Your task to perform on an android device: turn on sleep mode Image 0: 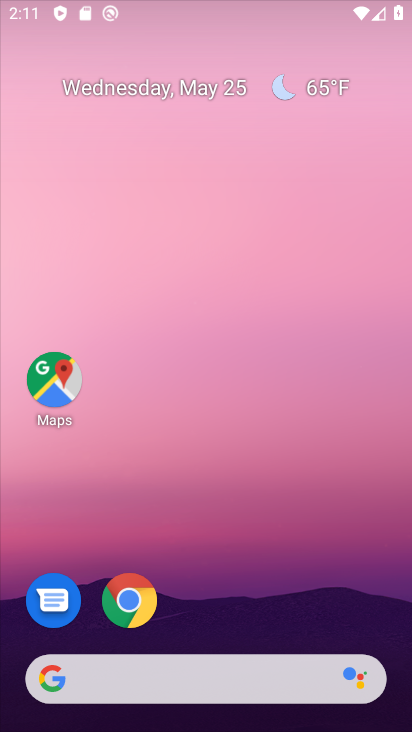
Step 0: drag from (298, 553) to (261, 149)
Your task to perform on an android device: turn on sleep mode Image 1: 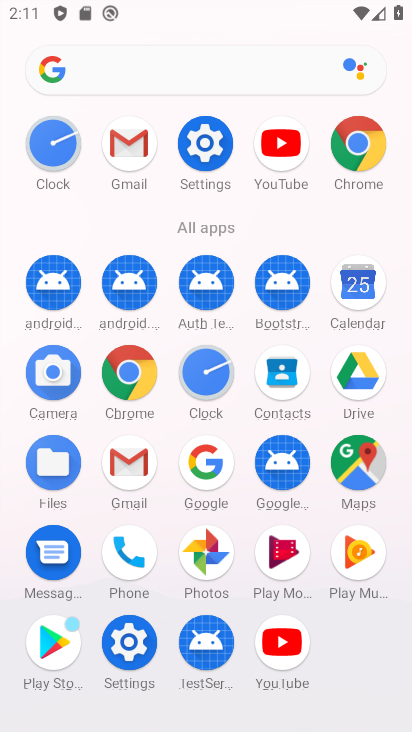
Step 1: click (194, 154)
Your task to perform on an android device: turn on sleep mode Image 2: 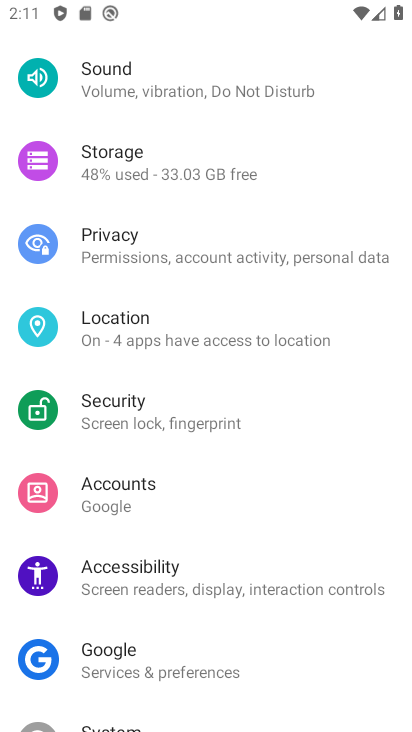
Step 2: drag from (195, 176) to (215, 522)
Your task to perform on an android device: turn on sleep mode Image 3: 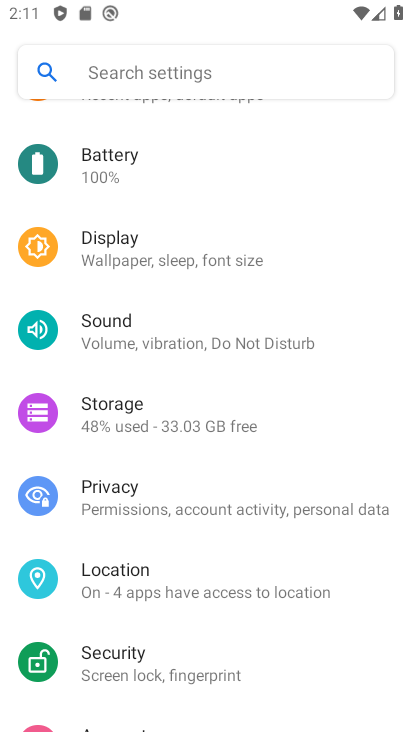
Step 3: drag from (221, 216) to (176, 551)
Your task to perform on an android device: turn on sleep mode Image 4: 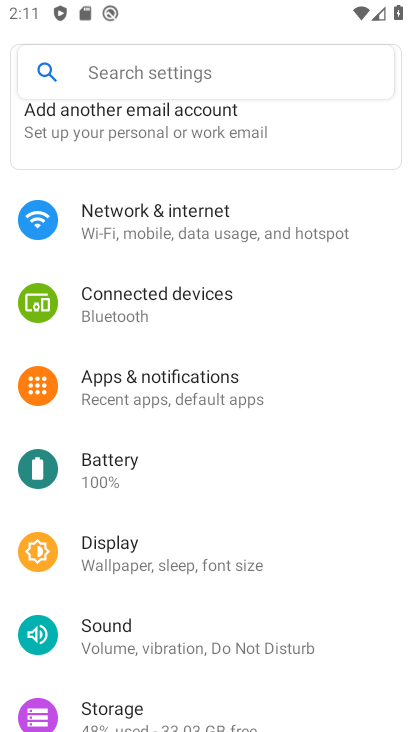
Step 4: click (148, 550)
Your task to perform on an android device: turn on sleep mode Image 5: 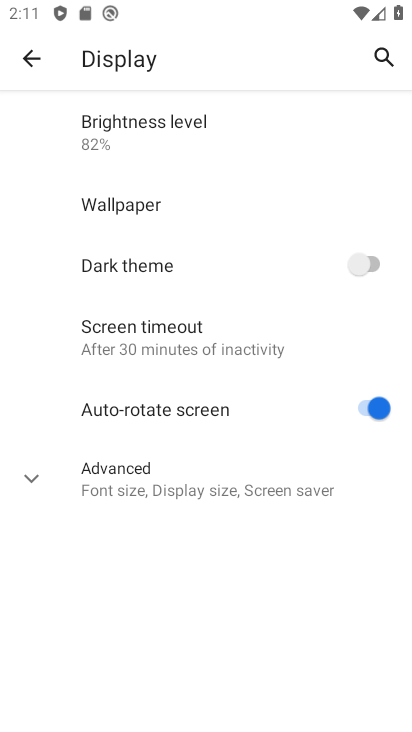
Step 5: click (174, 326)
Your task to perform on an android device: turn on sleep mode Image 6: 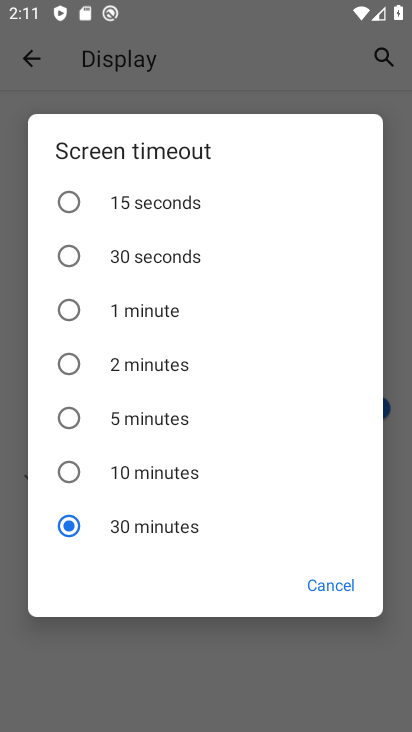
Step 6: task complete